Your task to perform on an android device: set default search engine in the chrome app Image 0: 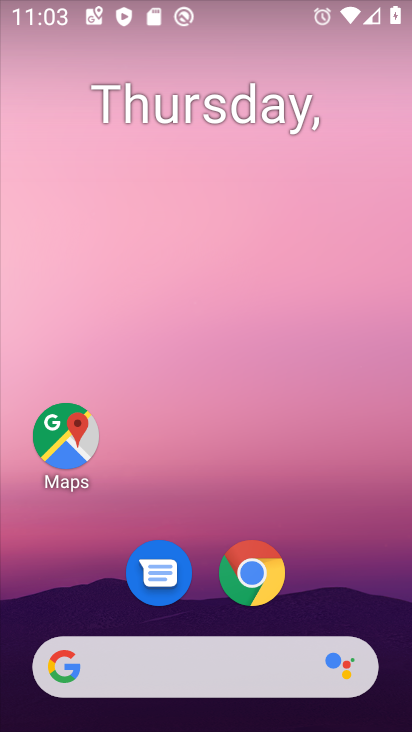
Step 0: click (266, 572)
Your task to perform on an android device: set default search engine in the chrome app Image 1: 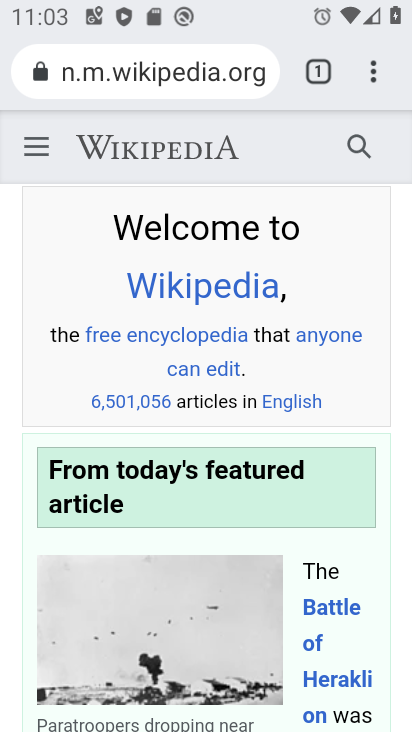
Step 1: drag from (373, 78) to (185, 574)
Your task to perform on an android device: set default search engine in the chrome app Image 2: 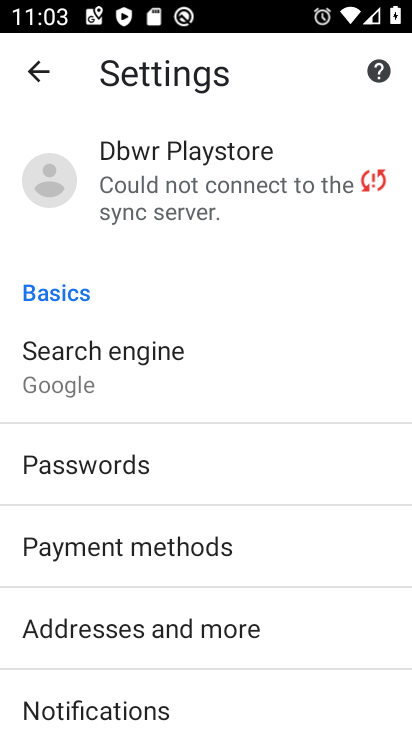
Step 2: click (129, 354)
Your task to perform on an android device: set default search engine in the chrome app Image 3: 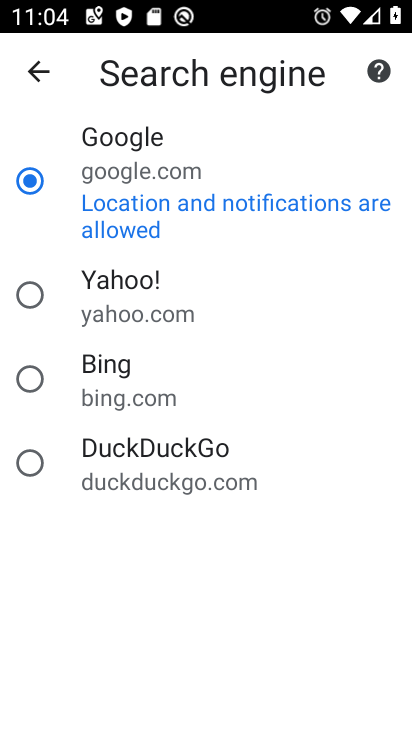
Step 3: task complete